Your task to perform on an android device: open wifi settings Image 0: 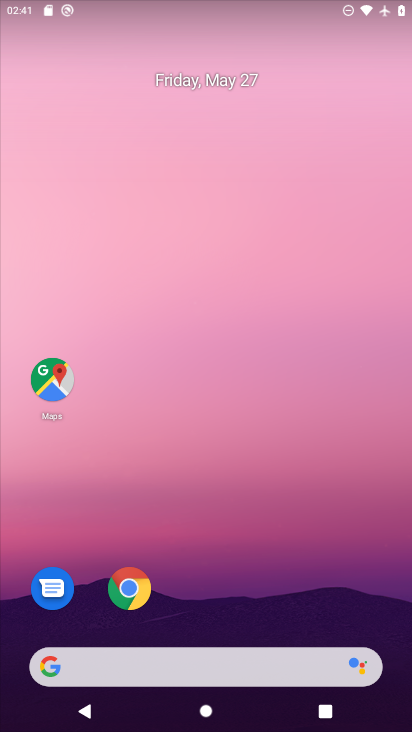
Step 0: drag from (379, 609) to (328, 56)
Your task to perform on an android device: open wifi settings Image 1: 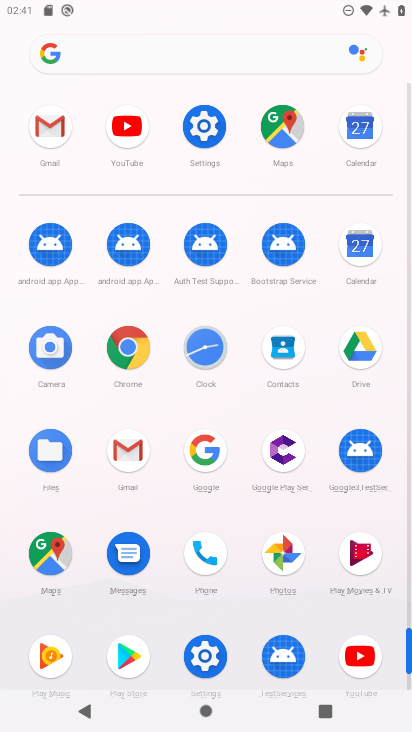
Step 1: click (206, 657)
Your task to perform on an android device: open wifi settings Image 2: 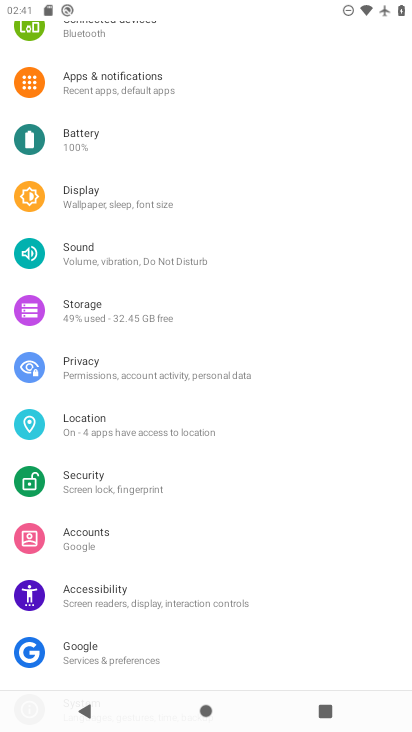
Step 2: drag from (303, 120) to (297, 321)
Your task to perform on an android device: open wifi settings Image 3: 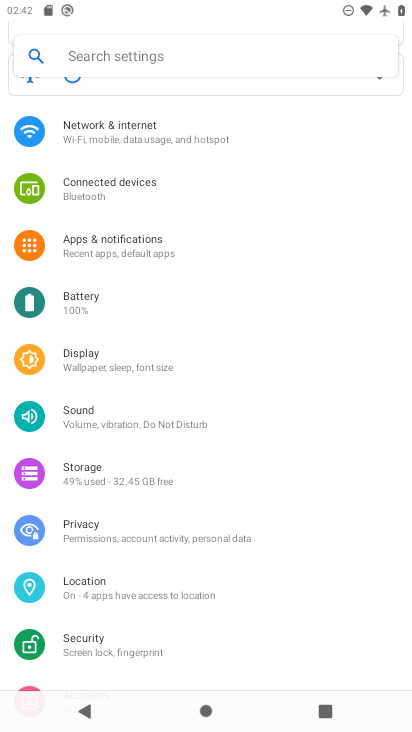
Step 3: click (91, 128)
Your task to perform on an android device: open wifi settings Image 4: 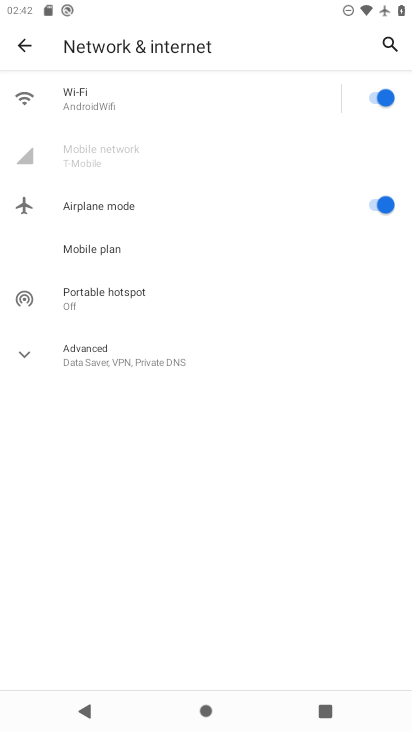
Step 4: click (79, 96)
Your task to perform on an android device: open wifi settings Image 5: 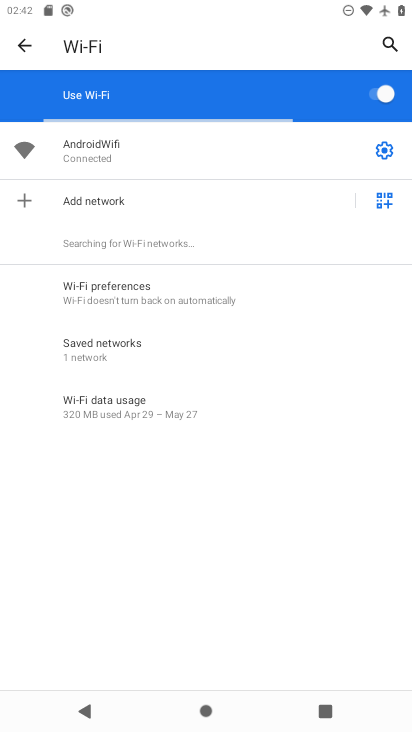
Step 5: click (385, 150)
Your task to perform on an android device: open wifi settings Image 6: 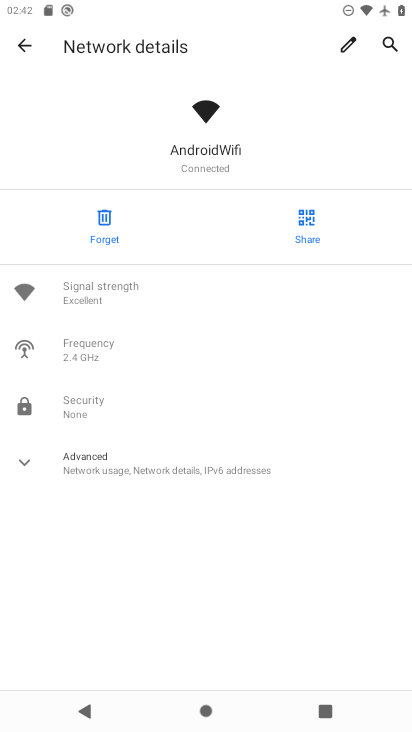
Step 6: click (35, 464)
Your task to perform on an android device: open wifi settings Image 7: 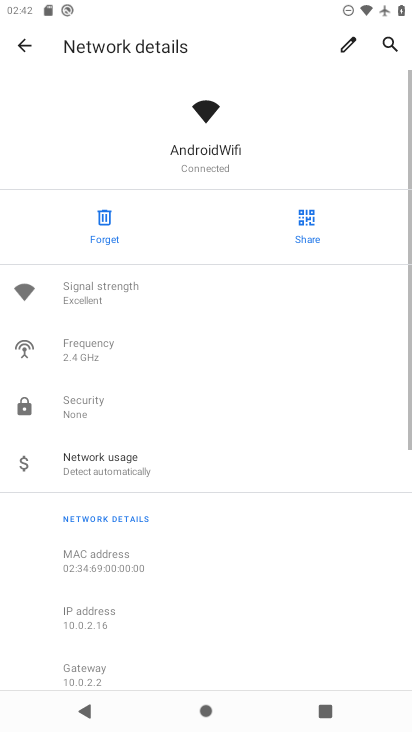
Step 7: task complete